Your task to perform on an android device: toggle priority inbox in the gmail app Image 0: 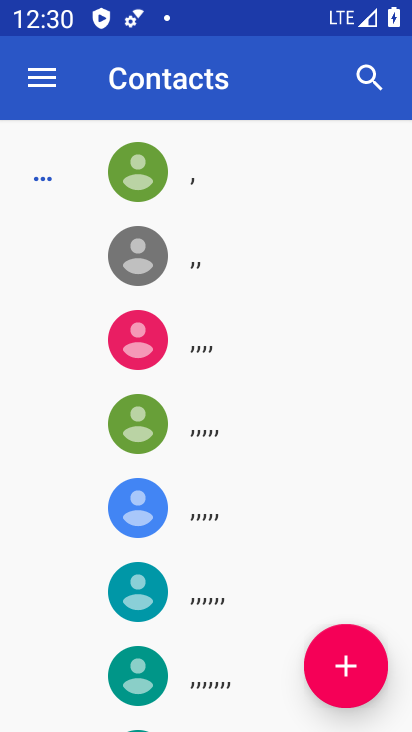
Step 0: drag from (193, 716) to (137, 335)
Your task to perform on an android device: toggle priority inbox in the gmail app Image 1: 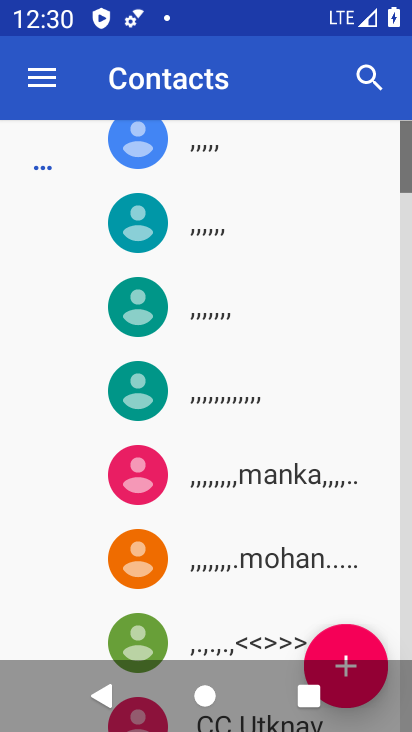
Step 1: press home button
Your task to perform on an android device: toggle priority inbox in the gmail app Image 2: 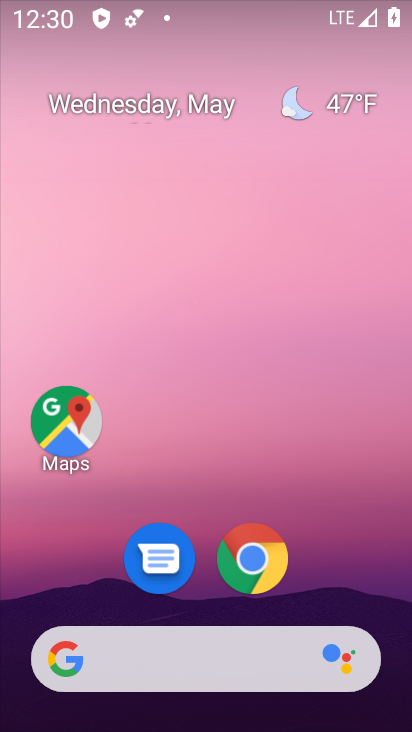
Step 2: drag from (214, 725) to (96, 251)
Your task to perform on an android device: toggle priority inbox in the gmail app Image 3: 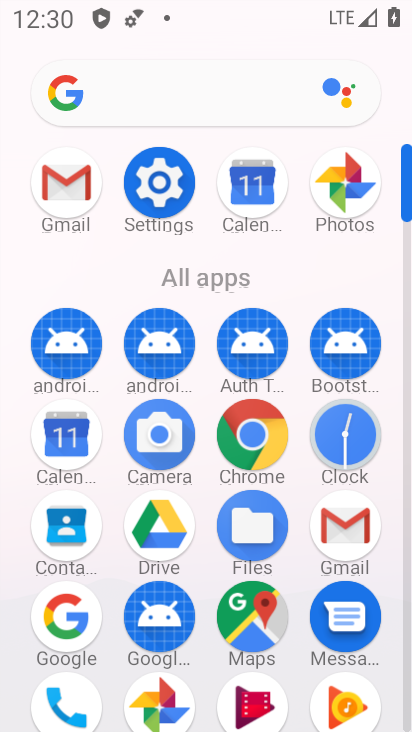
Step 3: click (345, 517)
Your task to perform on an android device: toggle priority inbox in the gmail app Image 4: 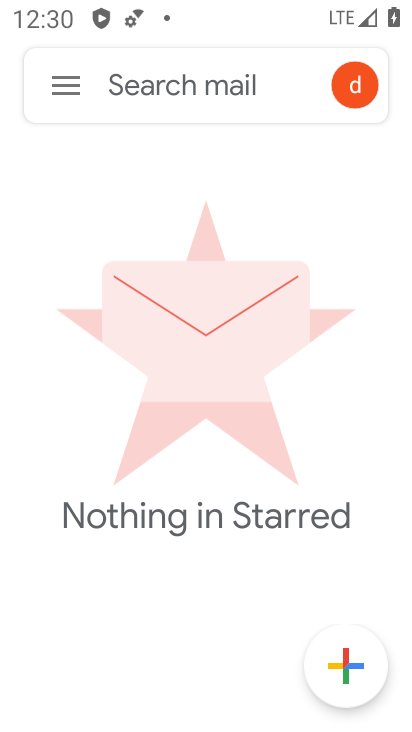
Step 4: click (62, 90)
Your task to perform on an android device: toggle priority inbox in the gmail app Image 5: 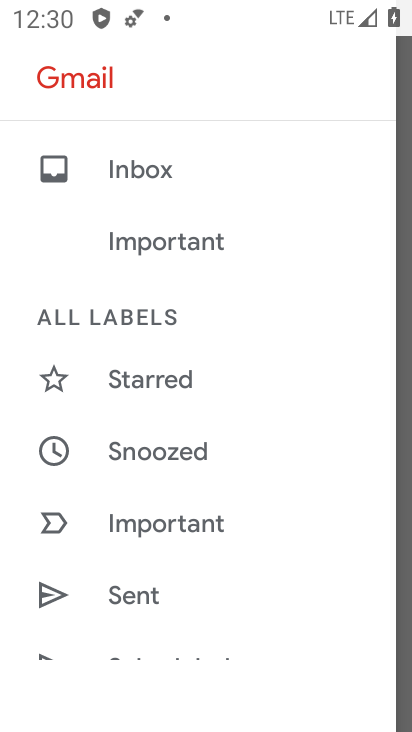
Step 5: drag from (151, 578) to (104, 176)
Your task to perform on an android device: toggle priority inbox in the gmail app Image 6: 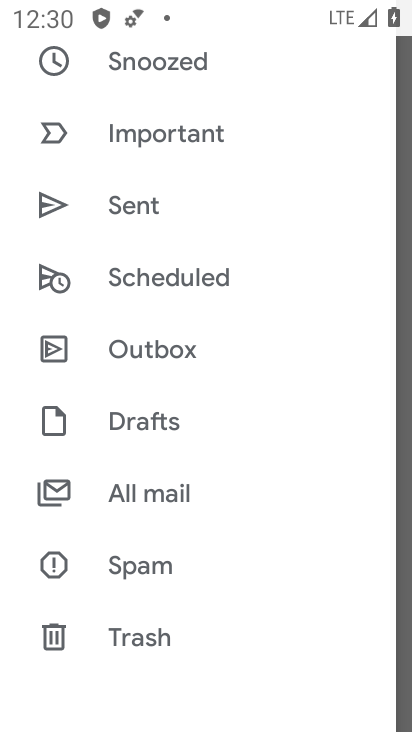
Step 6: drag from (164, 502) to (117, 199)
Your task to perform on an android device: toggle priority inbox in the gmail app Image 7: 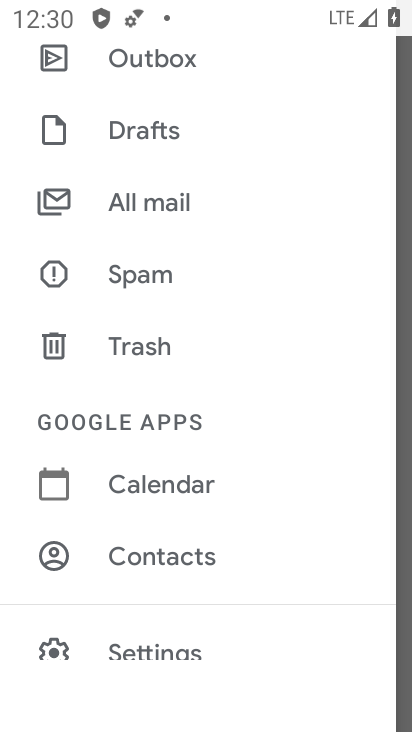
Step 7: click (146, 649)
Your task to perform on an android device: toggle priority inbox in the gmail app Image 8: 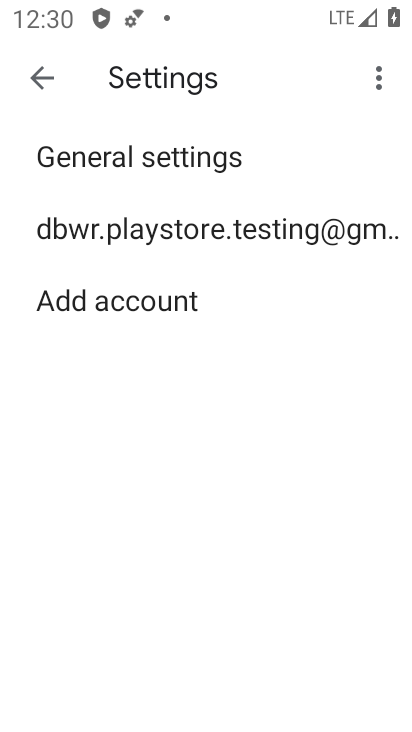
Step 8: click (139, 229)
Your task to perform on an android device: toggle priority inbox in the gmail app Image 9: 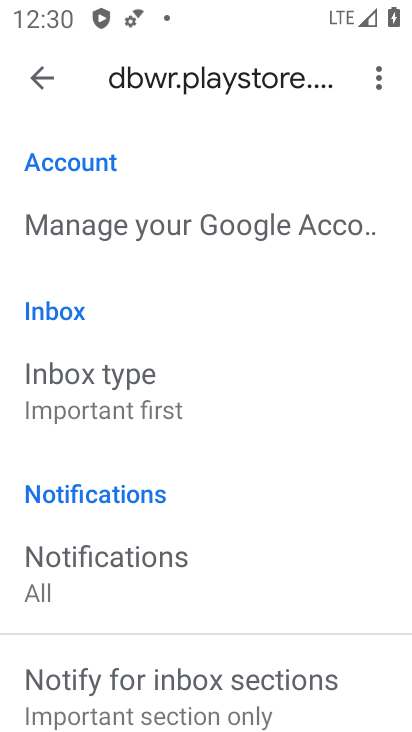
Step 9: click (117, 383)
Your task to perform on an android device: toggle priority inbox in the gmail app Image 10: 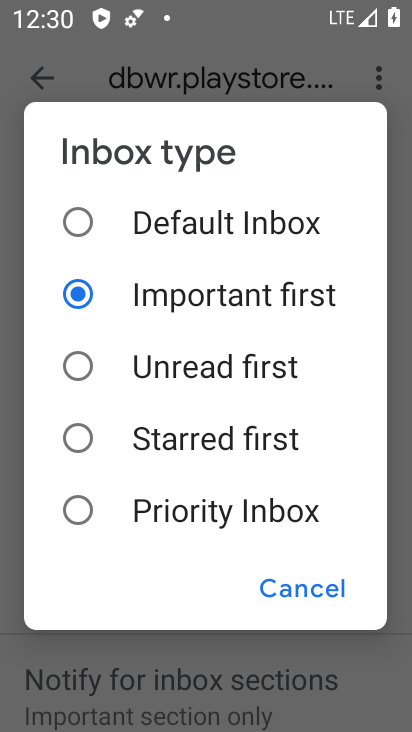
Step 10: click (76, 499)
Your task to perform on an android device: toggle priority inbox in the gmail app Image 11: 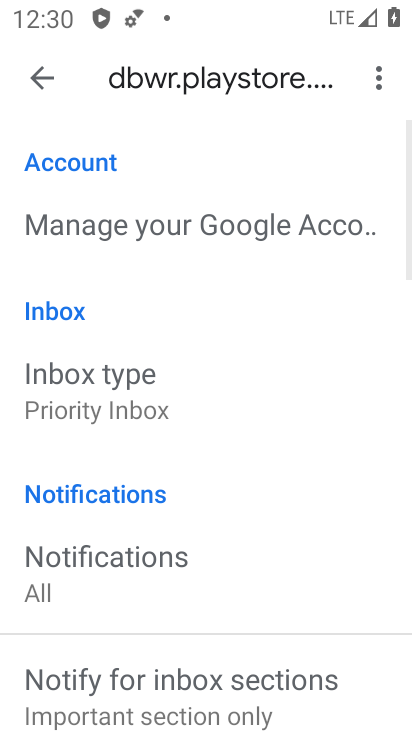
Step 11: task complete